Your task to perform on an android device: Open privacy settings Image 0: 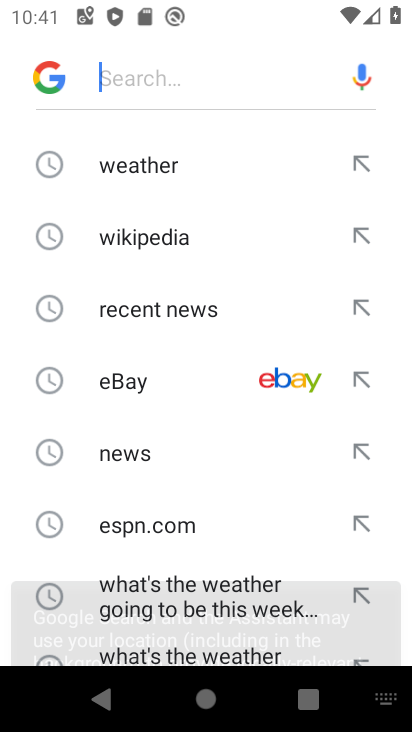
Step 0: press home button
Your task to perform on an android device: Open privacy settings Image 1: 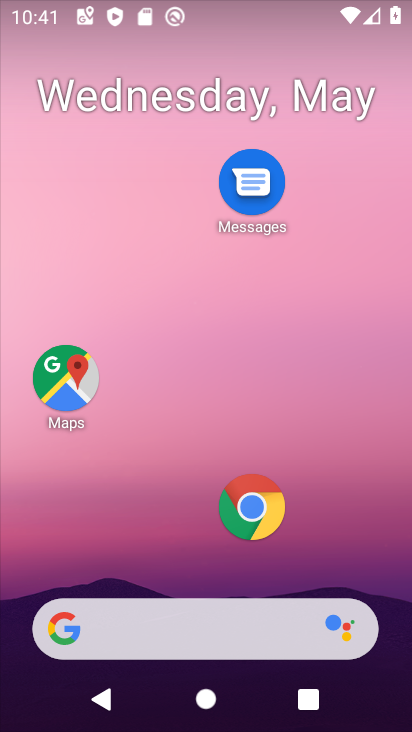
Step 1: drag from (196, 572) to (196, 66)
Your task to perform on an android device: Open privacy settings Image 2: 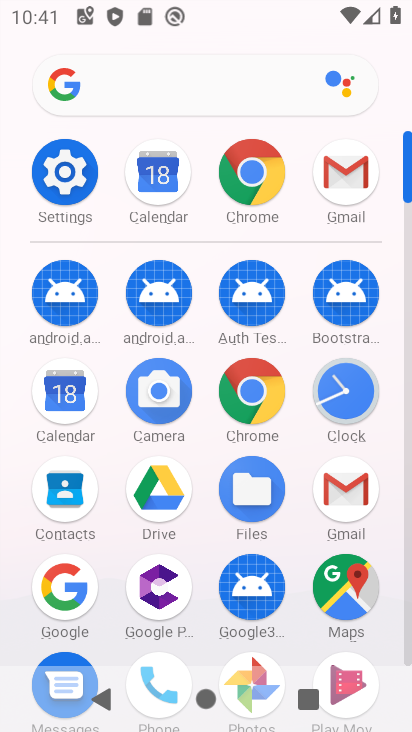
Step 2: click (60, 163)
Your task to perform on an android device: Open privacy settings Image 3: 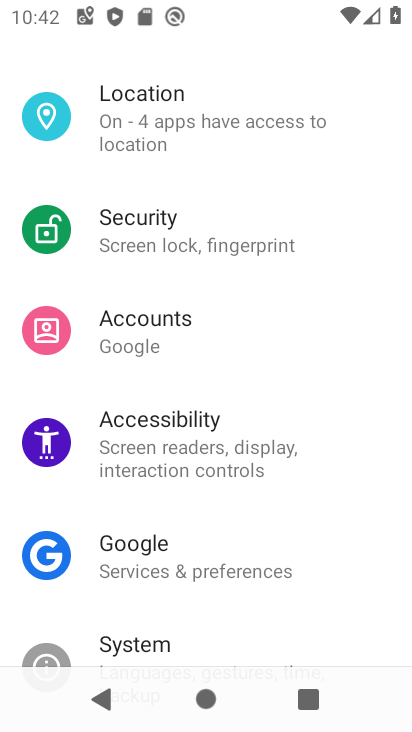
Step 3: drag from (80, 110) to (89, 561)
Your task to perform on an android device: Open privacy settings Image 4: 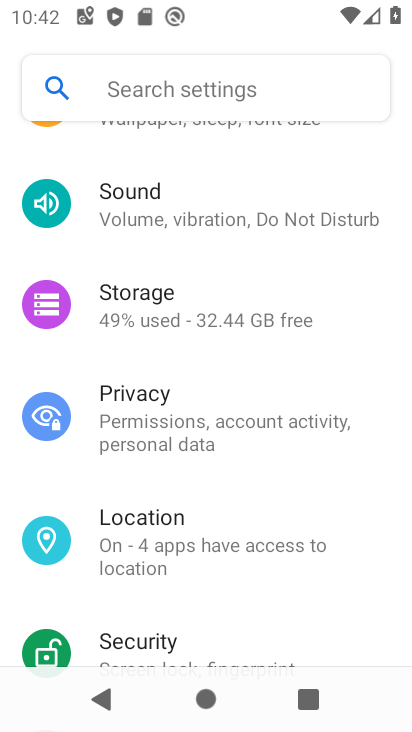
Step 4: click (83, 410)
Your task to perform on an android device: Open privacy settings Image 5: 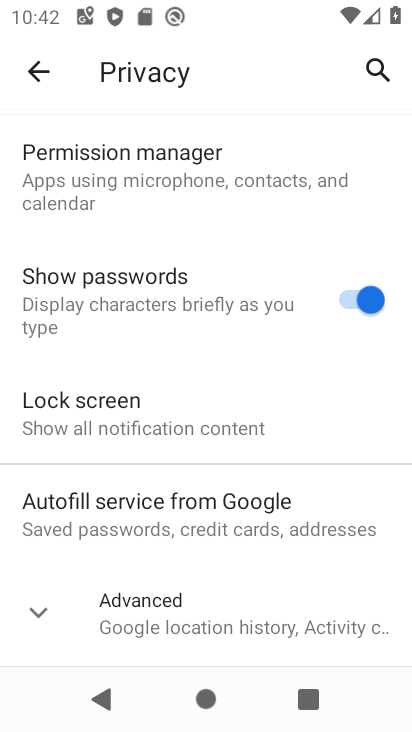
Step 5: click (36, 598)
Your task to perform on an android device: Open privacy settings Image 6: 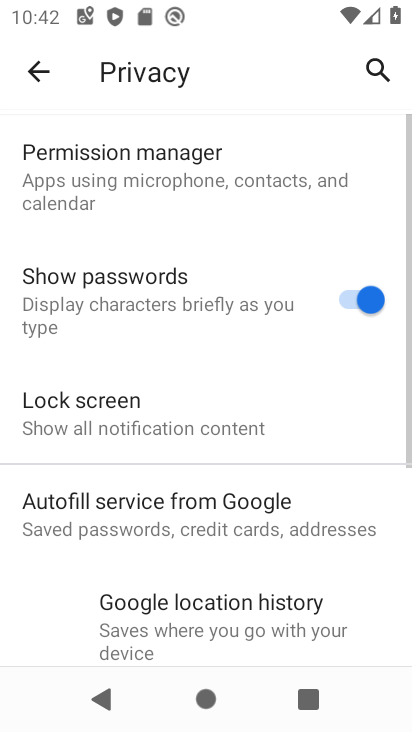
Step 6: task complete